Your task to perform on an android device: Open the Play Movies app and select the watchlist tab. Image 0: 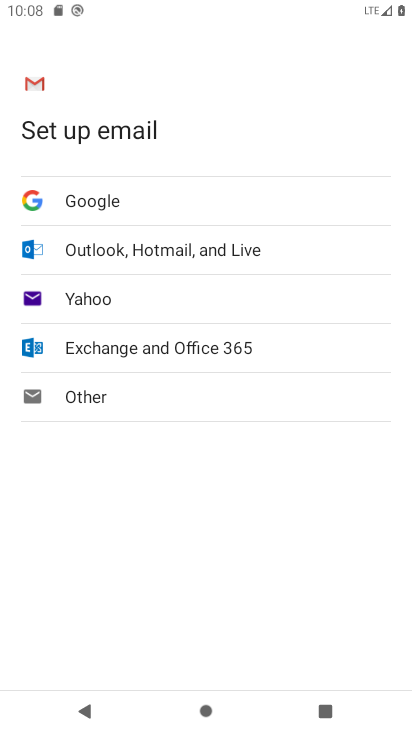
Step 0: press home button
Your task to perform on an android device: Open the Play Movies app and select the watchlist tab. Image 1: 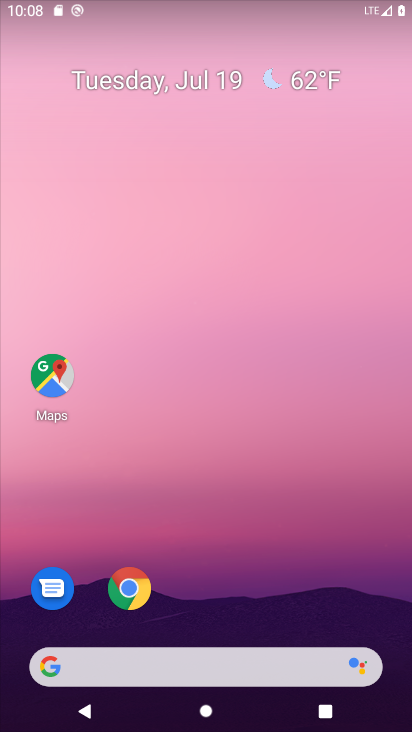
Step 1: drag from (197, 343) to (207, 26)
Your task to perform on an android device: Open the Play Movies app and select the watchlist tab. Image 2: 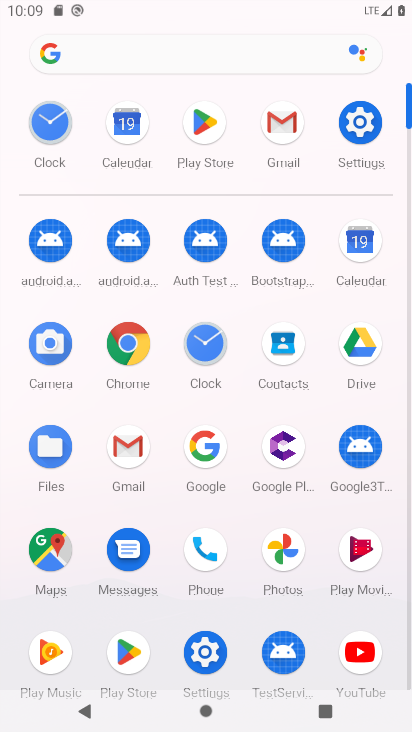
Step 2: click (374, 561)
Your task to perform on an android device: Open the Play Movies app and select the watchlist tab. Image 3: 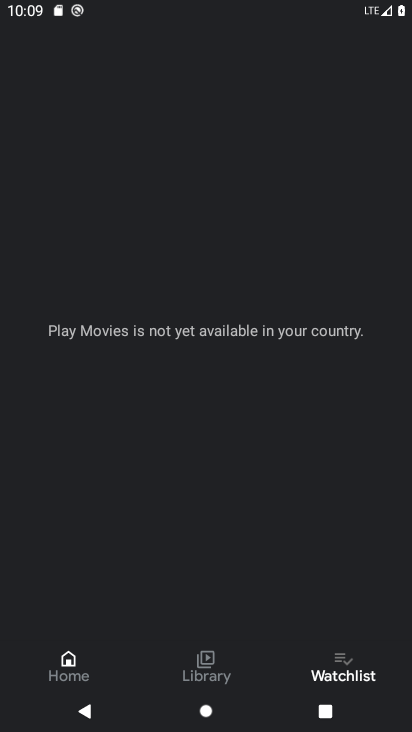
Step 3: click (336, 661)
Your task to perform on an android device: Open the Play Movies app and select the watchlist tab. Image 4: 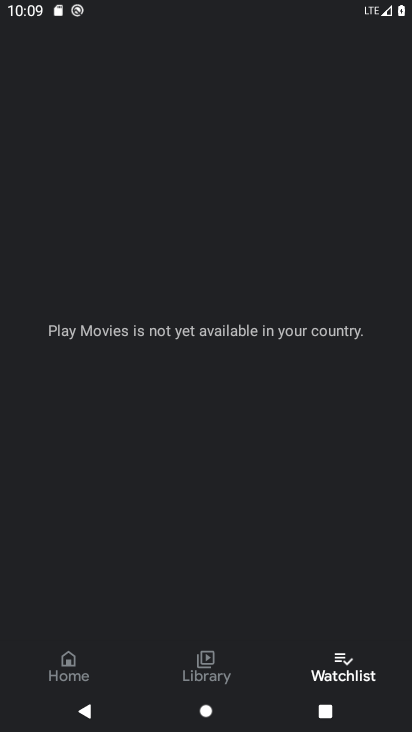
Step 4: task complete